Your task to perform on an android device: toggle data saver in the chrome app Image 0: 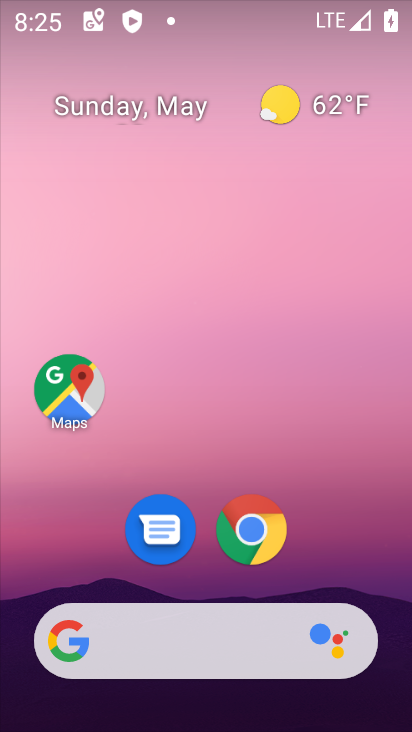
Step 0: click (263, 536)
Your task to perform on an android device: toggle data saver in the chrome app Image 1: 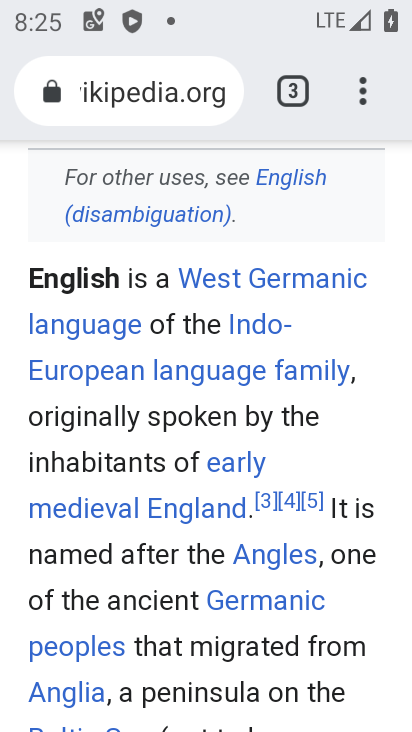
Step 1: drag from (360, 97) to (111, 536)
Your task to perform on an android device: toggle data saver in the chrome app Image 2: 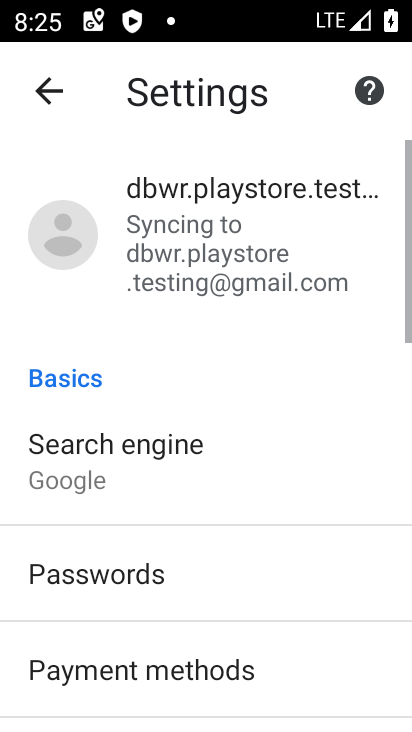
Step 2: drag from (187, 583) to (251, 106)
Your task to perform on an android device: toggle data saver in the chrome app Image 3: 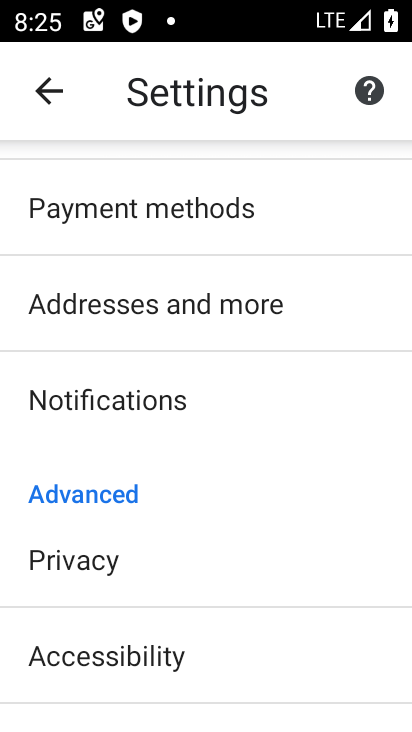
Step 3: drag from (171, 674) to (233, 192)
Your task to perform on an android device: toggle data saver in the chrome app Image 4: 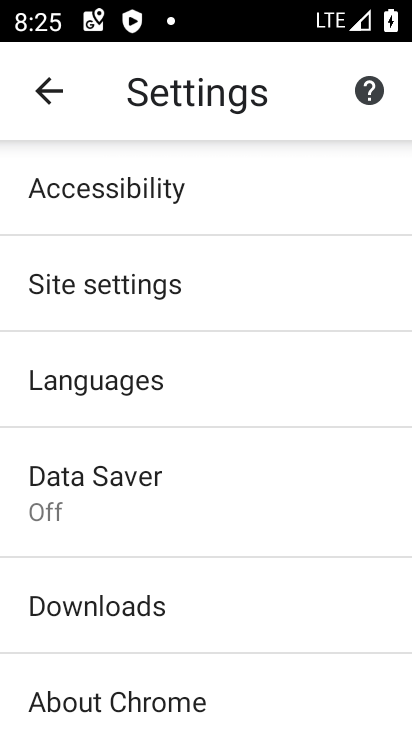
Step 4: click (91, 500)
Your task to perform on an android device: toggle data saver in the chrome app Image 5: 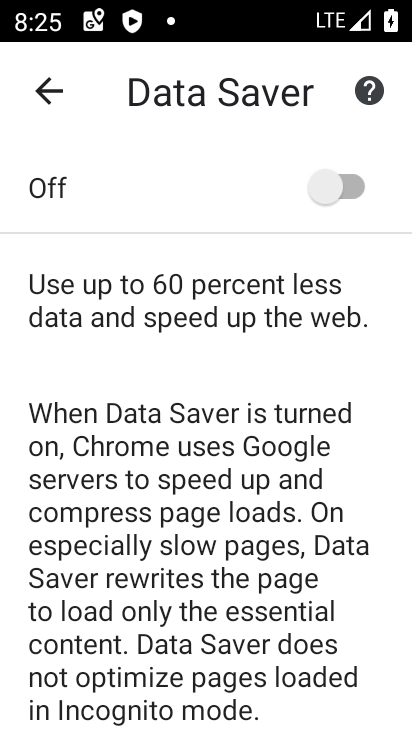
Step 5: click (334, 182)
Your task to perform on an android device: toggle data saver in the chrome app Image 6: 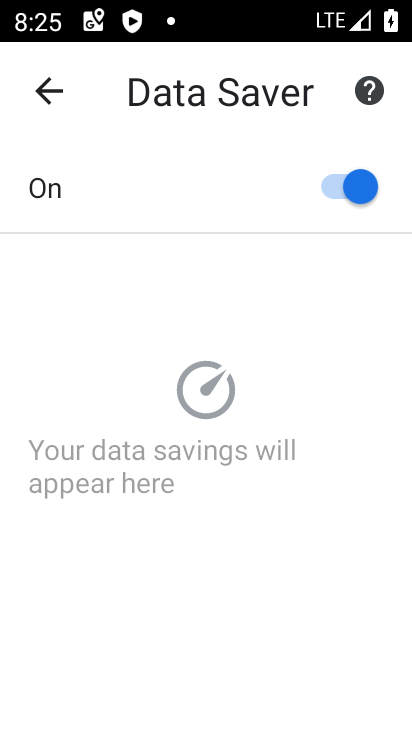
Step 6: task complete